Your task to perform on an android device: set the timer Image 0: 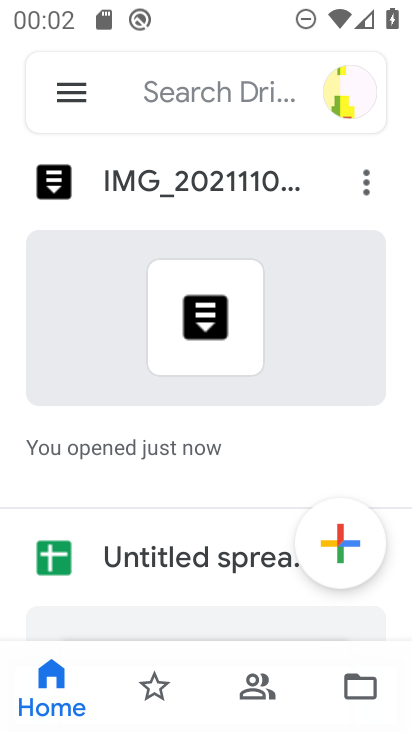
Step 0: press back button
Your task to perform on an android device: set the timer Image 1: 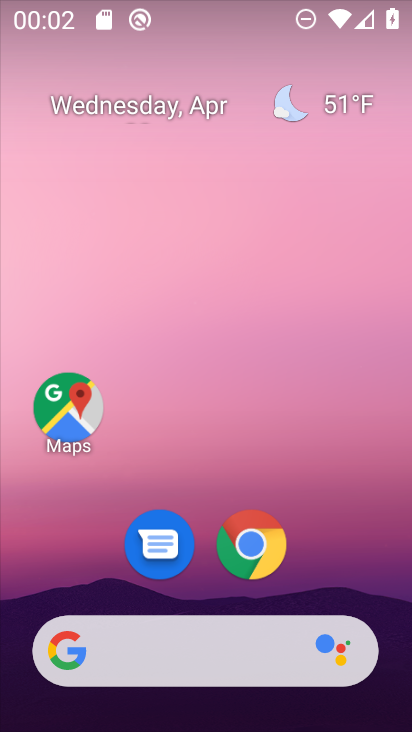
Step 1: drag from (342, 557) to (291, 115)
Your task to perform on an android device: set the timer Image 2: 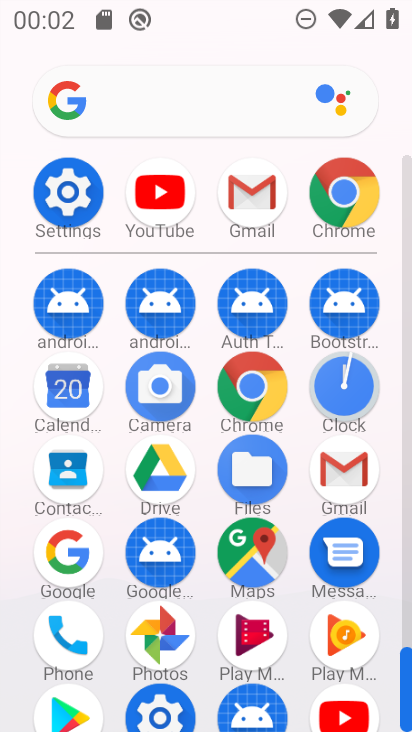
Step 2: click (334, 392)
Your task to perform on an android device: set the timer Image 3: 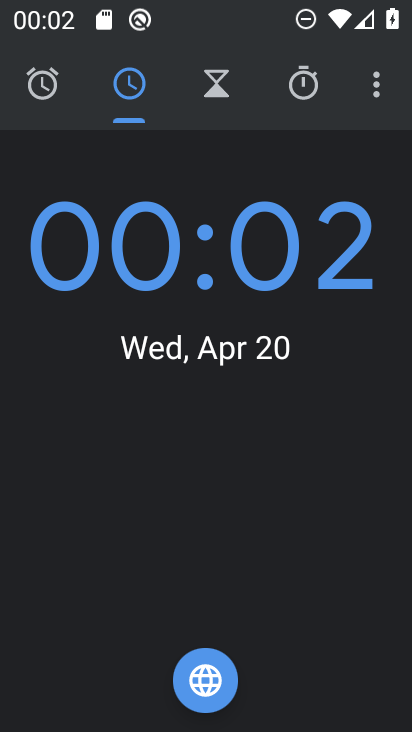
Step 3: click (211, 87)
Your task to perform on an android device: set the timer Image 4: 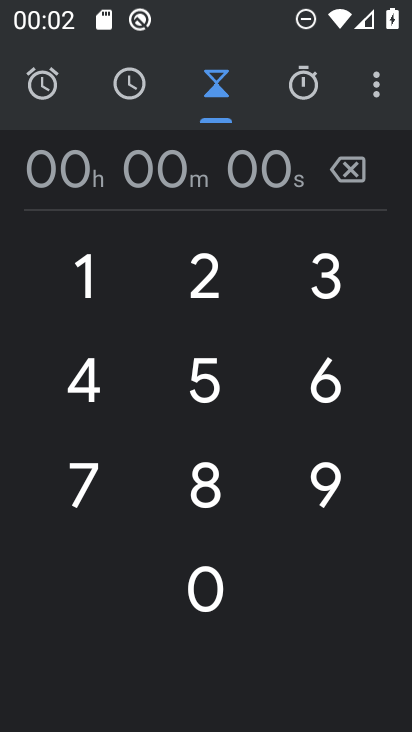
Step 4: click (212, 371)
Your task to perform on an android device: set the timer Image 5: 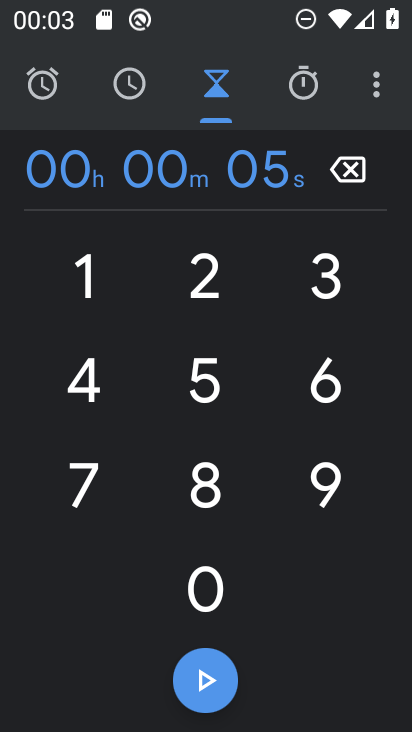
Step 5: click (211, 679)
Your task to perform on an android device: set the timer Image 6: 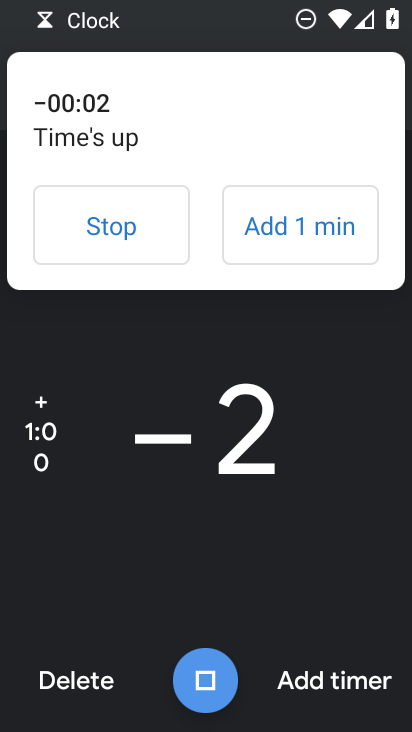
Step 6: task complete